Your task to perform on an android device: Go to calendar. Show me events next week Image 0: 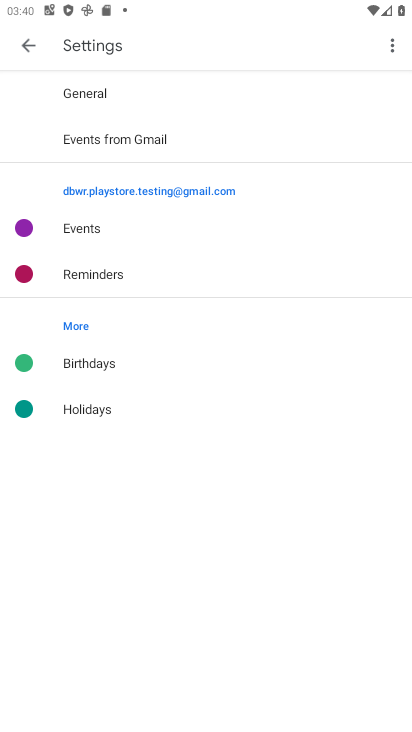
Step 0: press home button
Your task to perform on an android device: Go to calendar. Show me events next week Image 1: 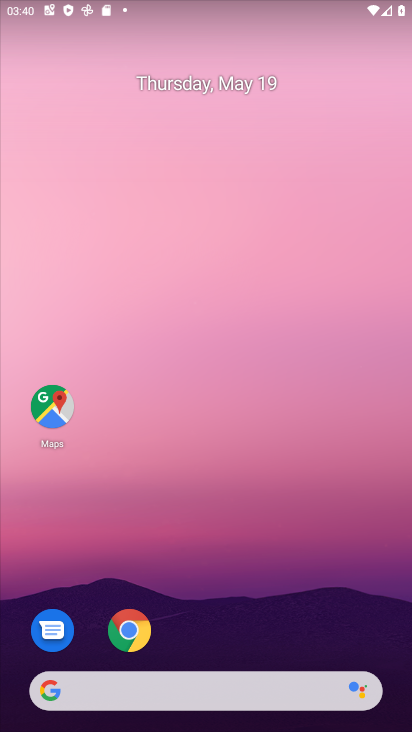
Step 1: drag from (395, 628) to (346, 132)
Your task to perform on an android device: Go to calendar. Show me events next week Image 2: 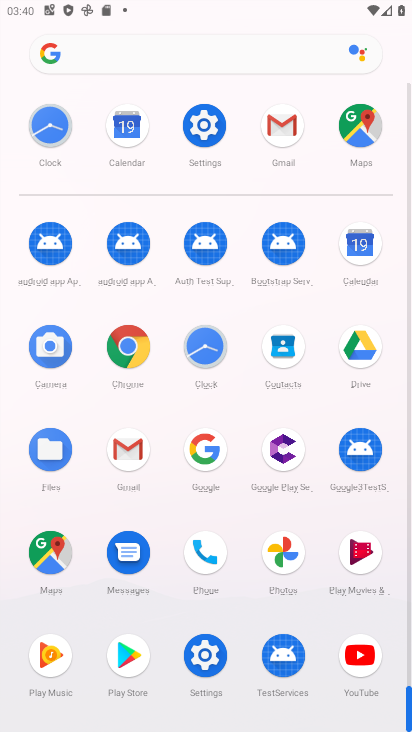
Step 2: click (361, 242)
Your task to perform on an android device: Go to calendar. Show me events next week Image 3: 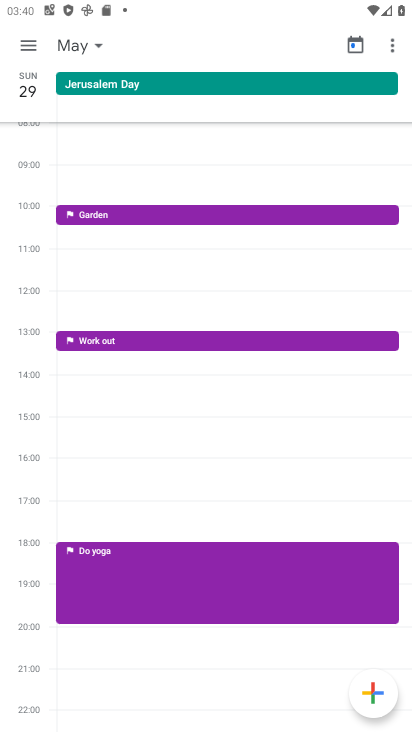
Step 3: click (31, 41)
Your task to perform on an android device: Go to calendar. Show me events next week Image 4: 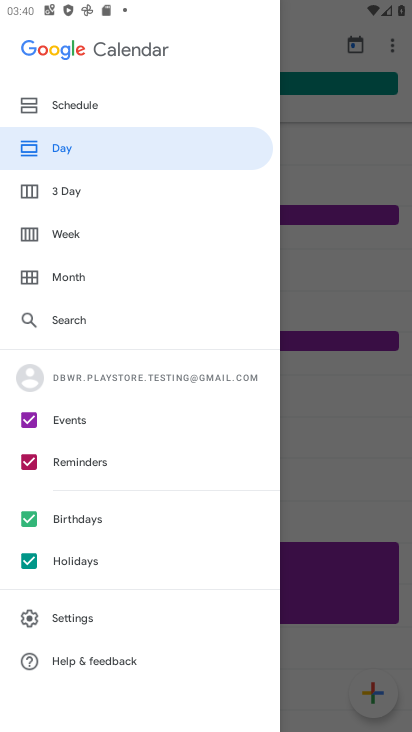
Step 4: click (64, 233)
Your task to perform on an android device: Go to calendar. Show me events next week Image 5: 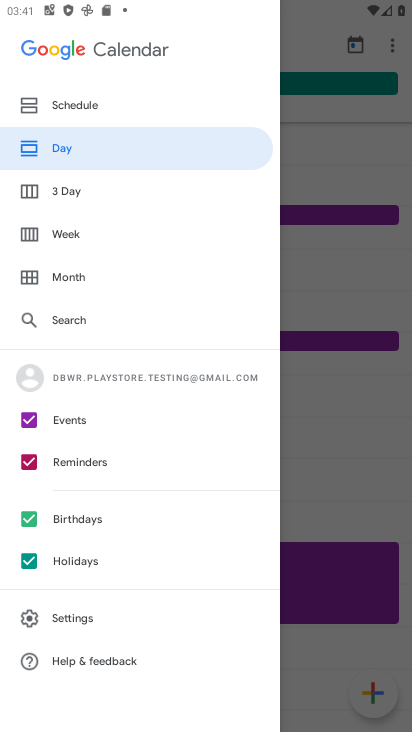
Step 5: click (57, 232)
Your task to perform on an android device: Go to calendar. Show me events next week Image 6: 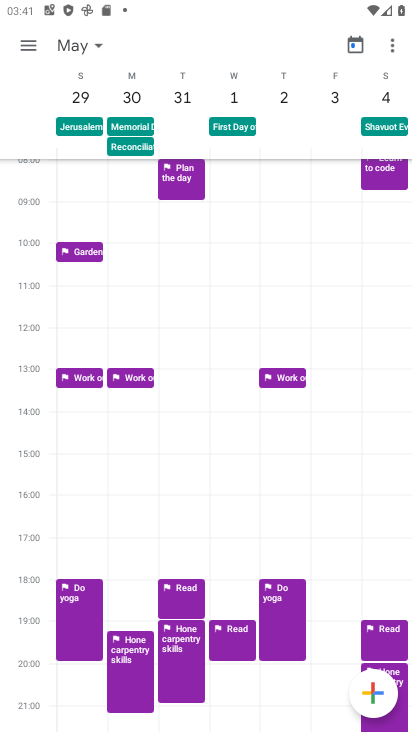
Step 6: task complete